Your task to perform on an android device: View the shopping cart on amazon.com. Search for "alienware aurora" on amazon.com, select the first entry, and add it to the cart. Image 0: 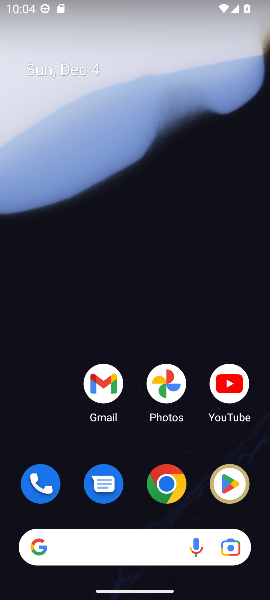
Step 0: click (165, 488)
Your task to perform on an android device: View the shopping cart on amazon.com. Search for "alienware aurora" on amazon.com, select the first entry, and add it to the cart. Image 1: 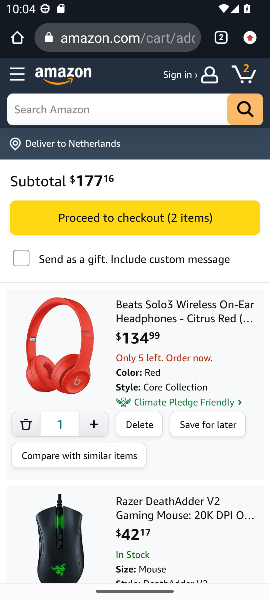
Step 1: drag from (238, 443) to (241, 286)
Your task to perform on an android device: View the shopping cart on amazon.com. Search for "alienware aurora" on amazon.com, select the first entry, and add it to the cart. Image 2: 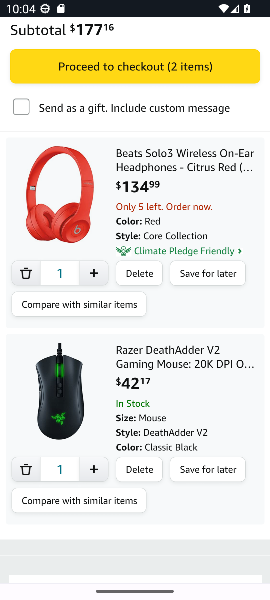
Step 2: drag from (252, 120) to (228, 331)
Your task to perform on an android device: View the shopping cart on amazon.com. Search for "alienware aurora" on amazon.com, select the first entry, and add it to the cart. Image 3: 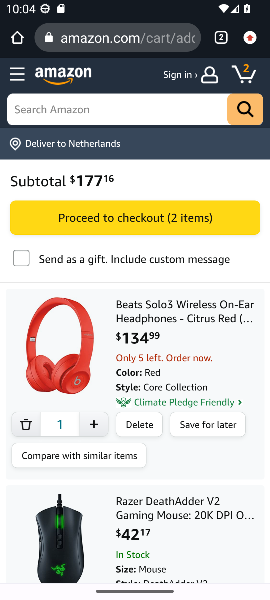
Step 3: click (55, 109)
Your task to perform on an android device: View the shopping cart on amazon.com. Search for "alienware aurora" on amazon.com, select the first entry, and add it to the cart. Image 4: 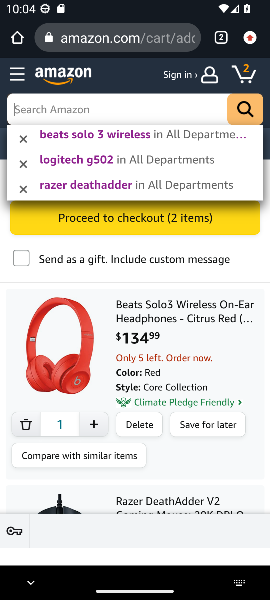
Step 4: type "alienware aurora"
Your task to perform on an android device: View the shopping cart on amazon.com. Search for "alienware aurora" on amazon.com, select the first entry, and add it to the cart. Image 5: 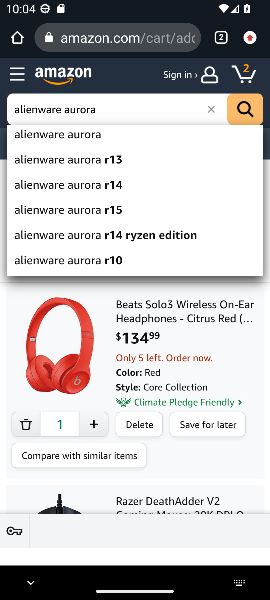
Step 5: click (29, 138)
Your task to perform on an android device: View the shopping cart on amazon.com. Search for "alienware aurora" on amazon.com, select the first entry, and add it to the cart. Image 6: 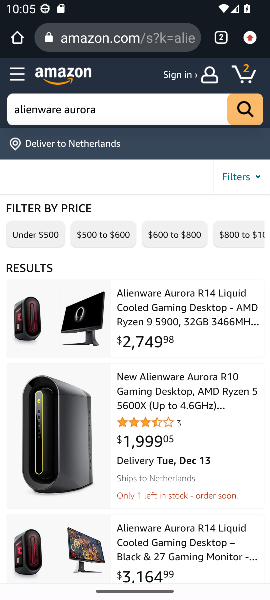
Step 6: click (164, 314)
Your task to perform on an android device: View the shopping cart on amazon.com. Search for "alienware aurora" on amazon.com, select the first entry, and add it to the cart. Image 7: 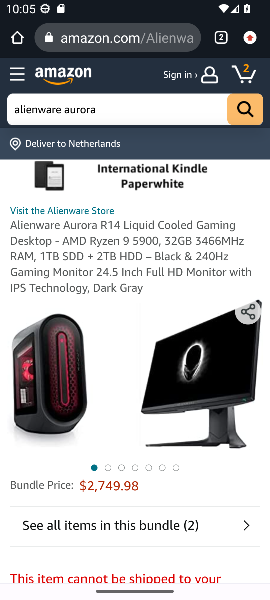
Step 7: task complete